Your task to perform on an android device: turn off notifications settings in the gmail app Image 0: 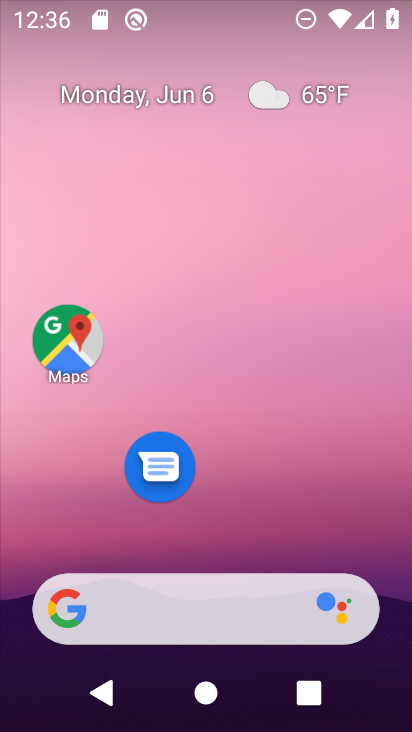
Step 0: drag from (325, 239) to (289, 99)
Your task to perform on an android device: turn off notifications settings in the gmail app Image 1: 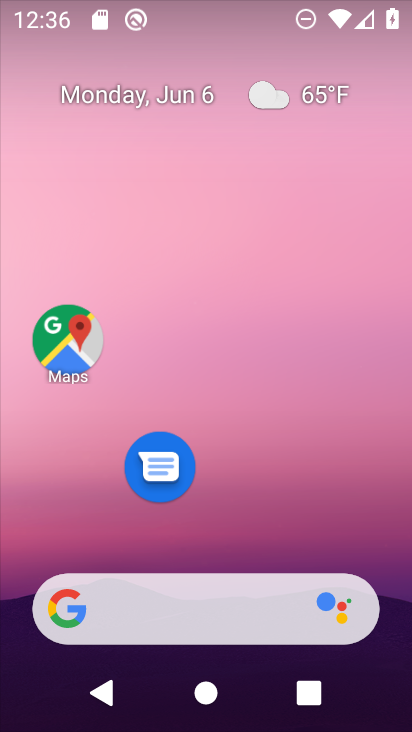
Step 1: drag from (313, 529) to (388, 20)
Your task to perform on an android device: turn off notifications settings in the gmail app Image 2: 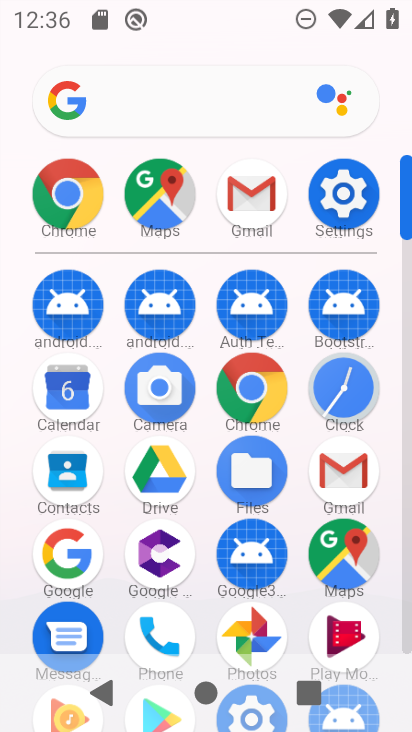
Step 2: click (254, 177)
Your task to perform on an android device: turn off notifications settings in the gmail app Image 3: 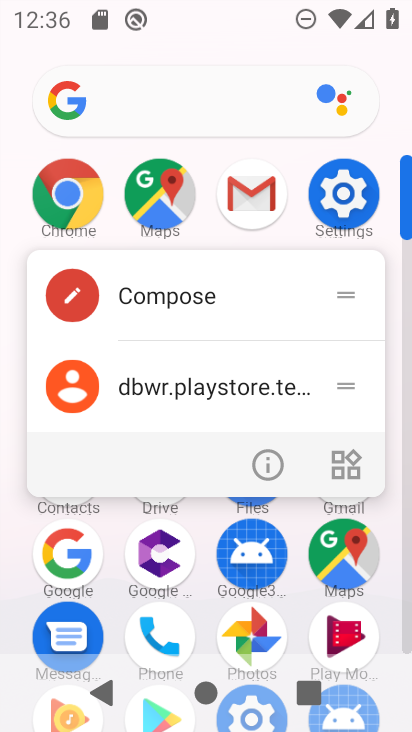
Step 3: click (274, 472)
Your task to perform on an android device: turn off notifications settings in the gmail app Image 4: 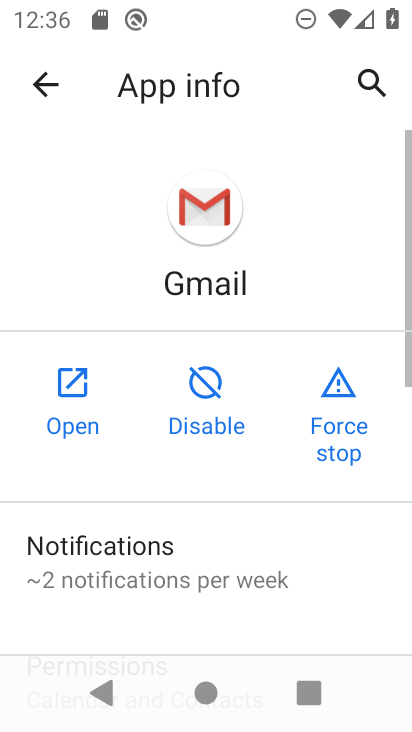
Step 4: click (213, 531)
Your task to perform on an android device: turn off notifications settings in the gmail app Image 5: 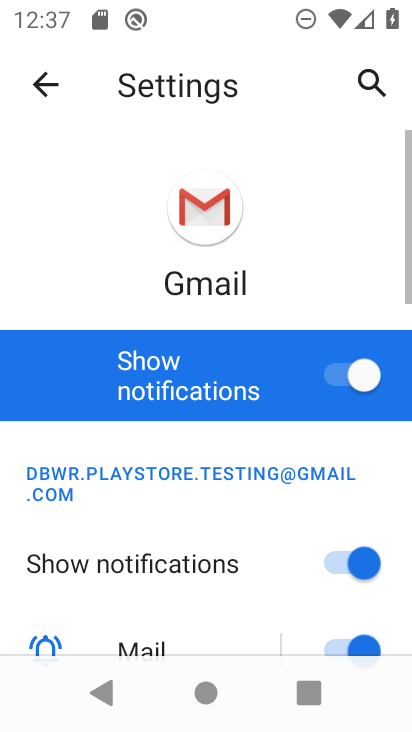
Step 5: click (223, 409)
Your task to perform on an android device: turn off notifications settings in the gmail app Image 6: 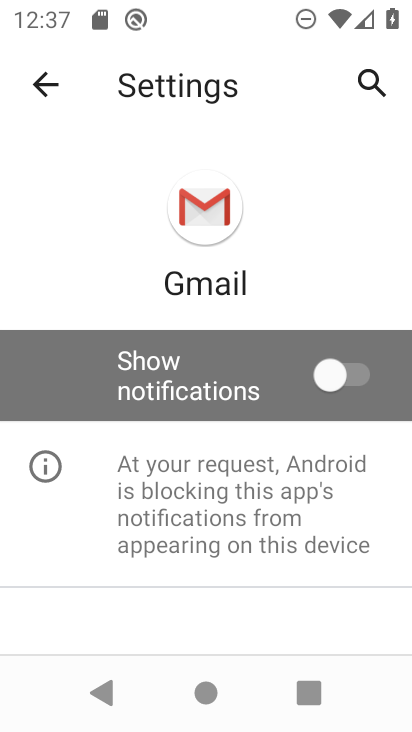
Step 6: task complete